Your task to perform on an android device: Check the weather Image 0: 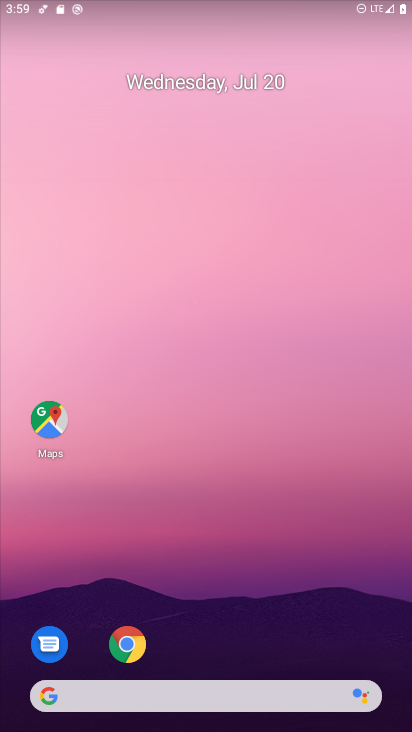
Step 0: drag from (161, 638) to (150, 134)
Your task to perform on an android device: Check the weather Image 1: 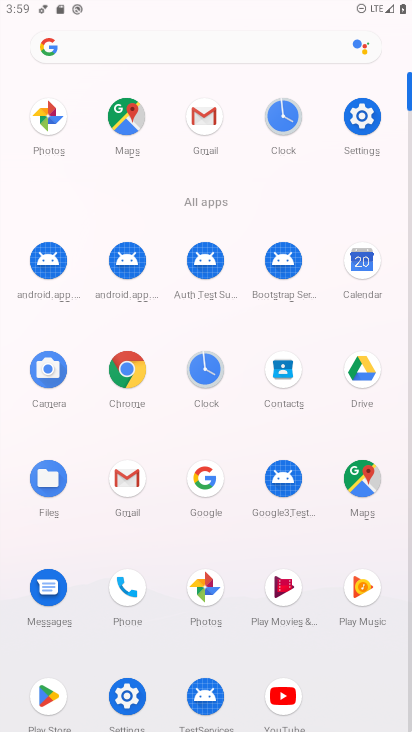
Step 1: click (201, 503)
Your task to perform on an android device: Check the weather Image 2: 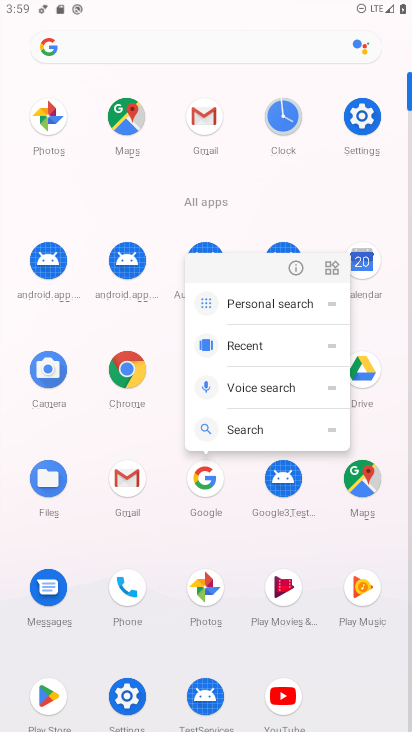
Step 2: click (192, 515)
Your task to perform on an android device: Check the weather Image 3: 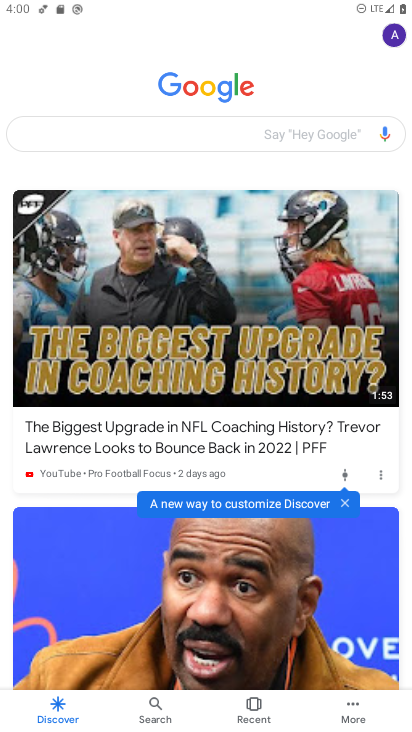
Step 3: click (271, 133)
Your task to perform on an android device: Check the weather Image 4: 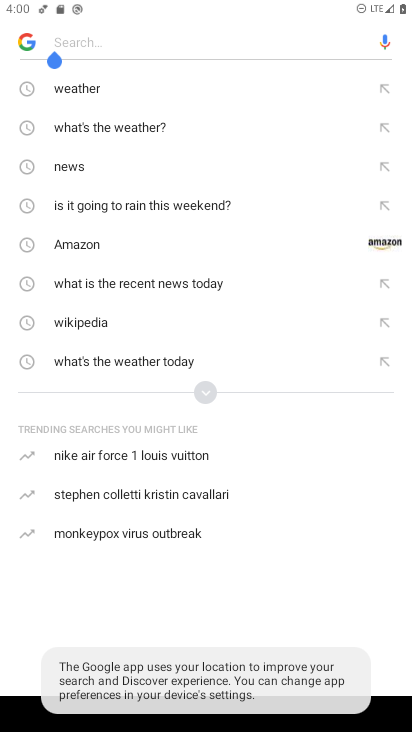
Step 4: click (76, 90)
Your task to perform on an android device: Check the weather Image 5: 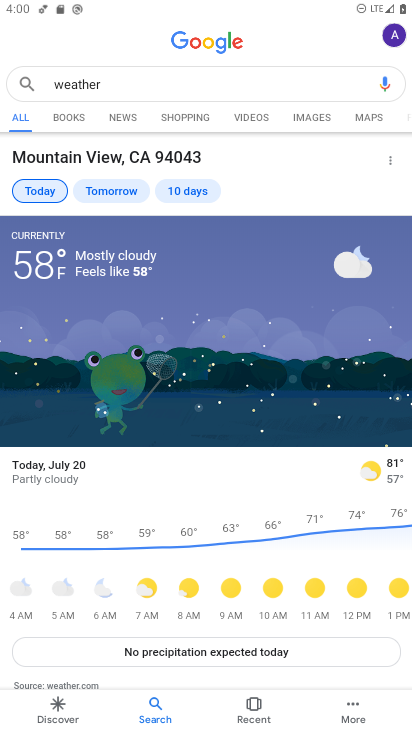
Step 5: task complete